Your task to perform on an android device: turn smart compose on in the gmail app Image 0: 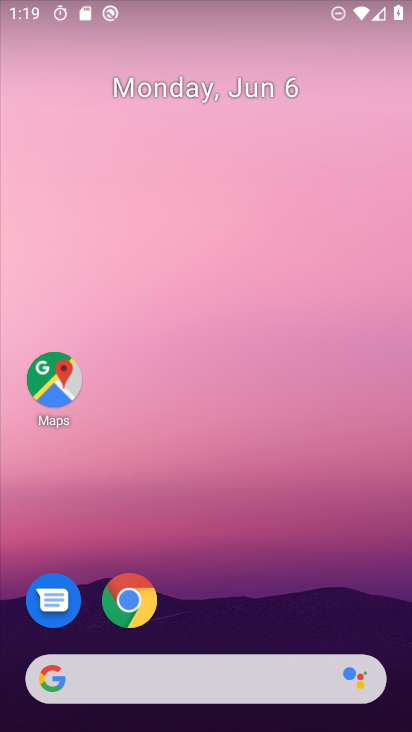
Step 0: drag from (232, 628) to (213, 152)
Your task to perform on an android device: turn smart compose on in the gmail app Image 1: 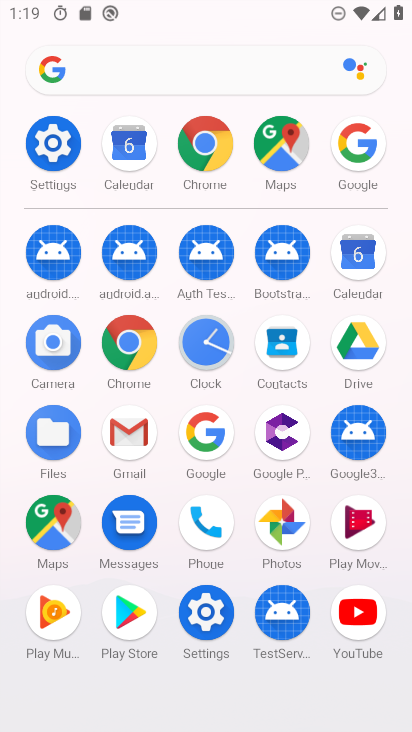
Step 1: click (139, 438)
Your task to perform on an android device: turn smart compose on in the gmail app Image 2: 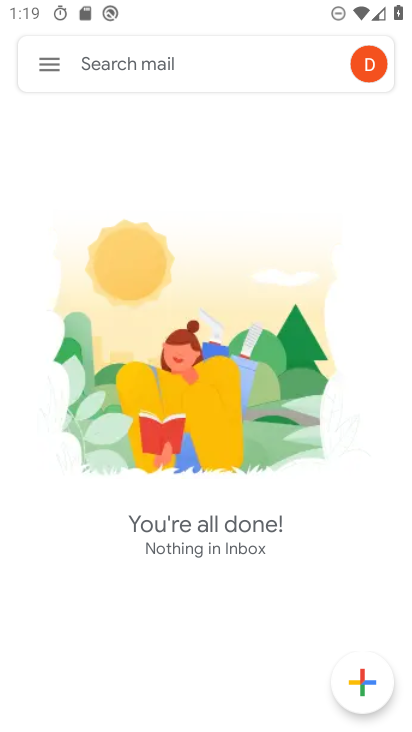
Step 2: click (52, 66)
Your task to perform on an android device: turn smart compose on in the gmail app Image 3: 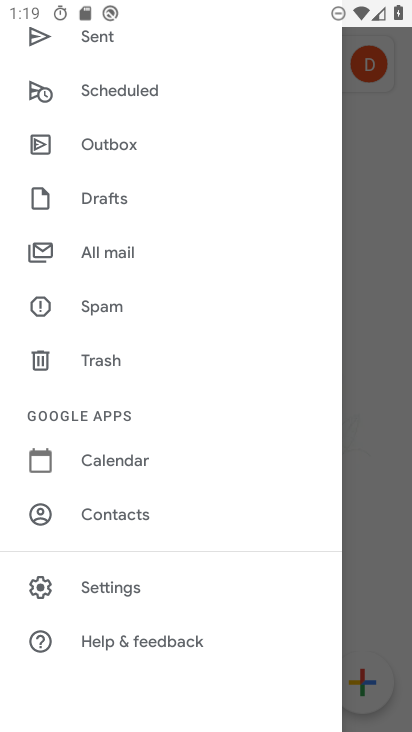
Step 3: click (105, 574)
Your task to perform on an android device: turn smart compose on in the gmail app Image 4: 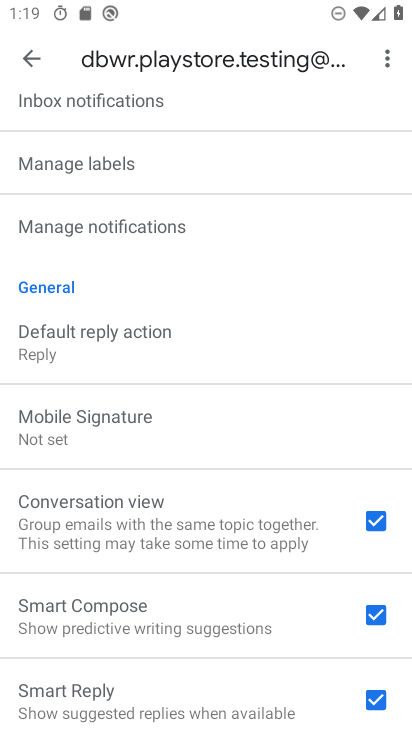
Step 4: task complete